Your task to perform on an android device: add a label to a message in the gmail app Image 0: 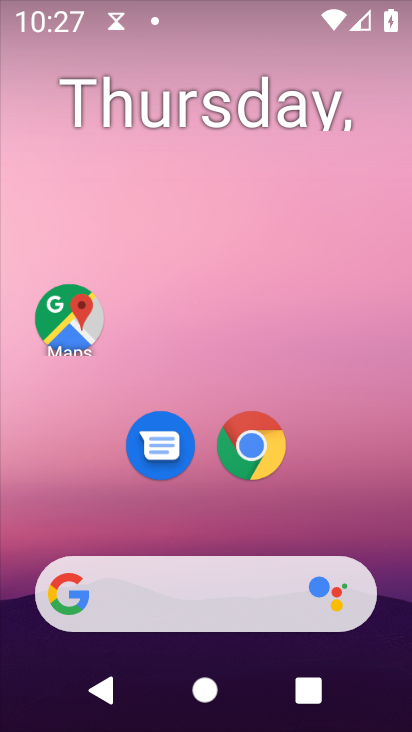
Step 0: drag from (259, 730) to (261, 88)
Your task to perform on an android device: add a label to a message in the gmail app Image 1: 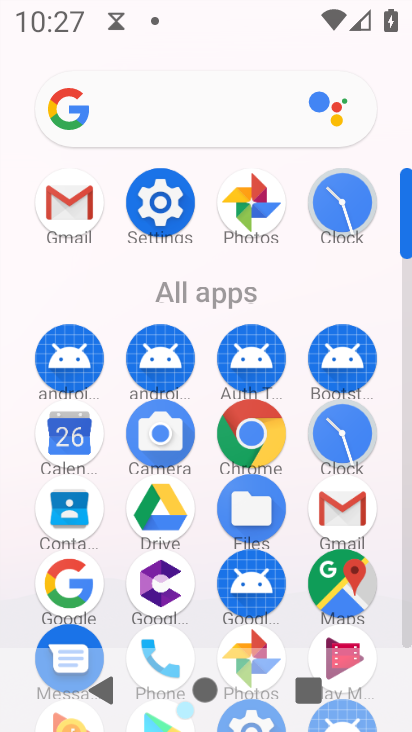
Step 1: click (343, 505)
Your task to perform on an android device: add a label to a message in the gmail app Image 2: 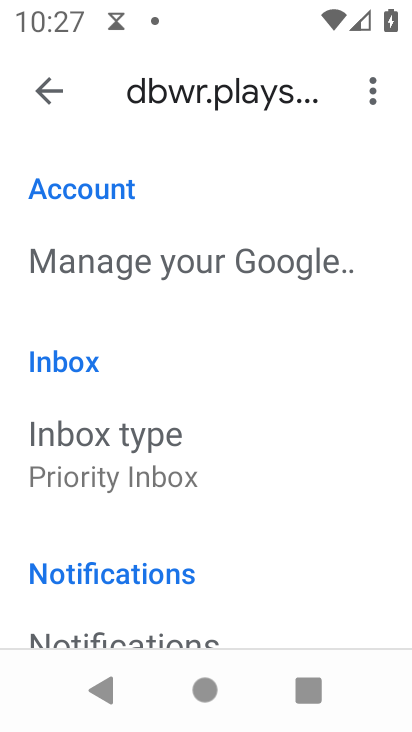
Step 2: click (44, 89)
Your task to perform on an android device: add a label to a message in the gmail app Image 3: 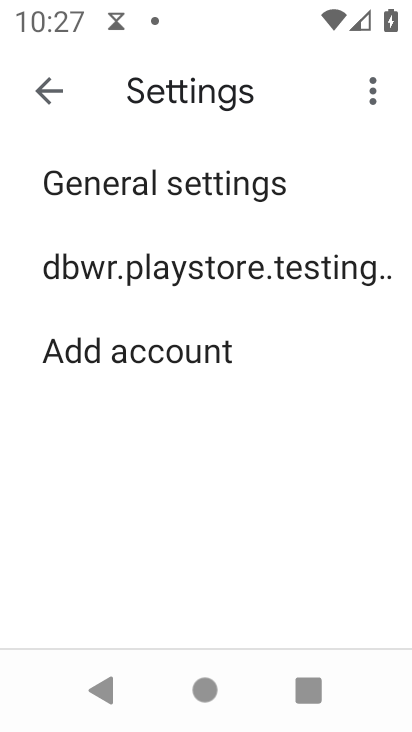
Step 3: click (44, 89)
Your task to perform on an android device: add a label to a message in the gmail app Image 4: 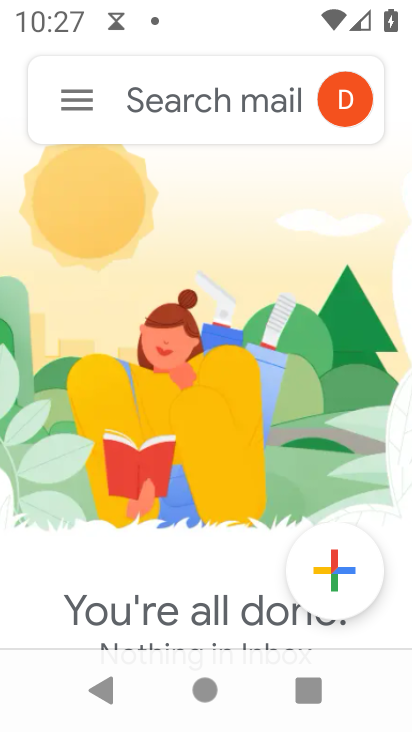
Step 4: task complete